Your task to perform on an android device: toggle priority inbox in the gmail app Image 0: 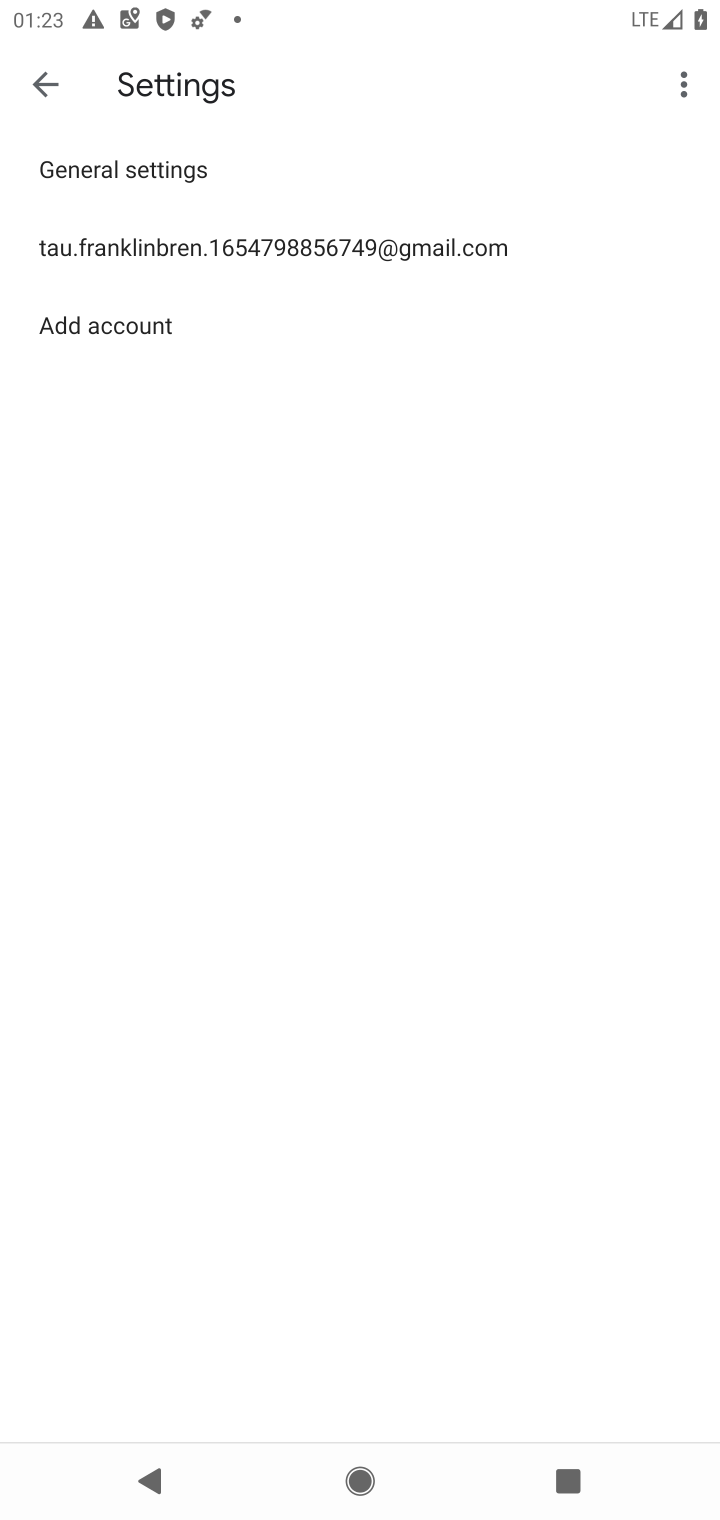
Step 0: drag from (349, 797) to (365, 343)
Your task to perform on an android device: toggle priority inbox in the gmail app Image 1: 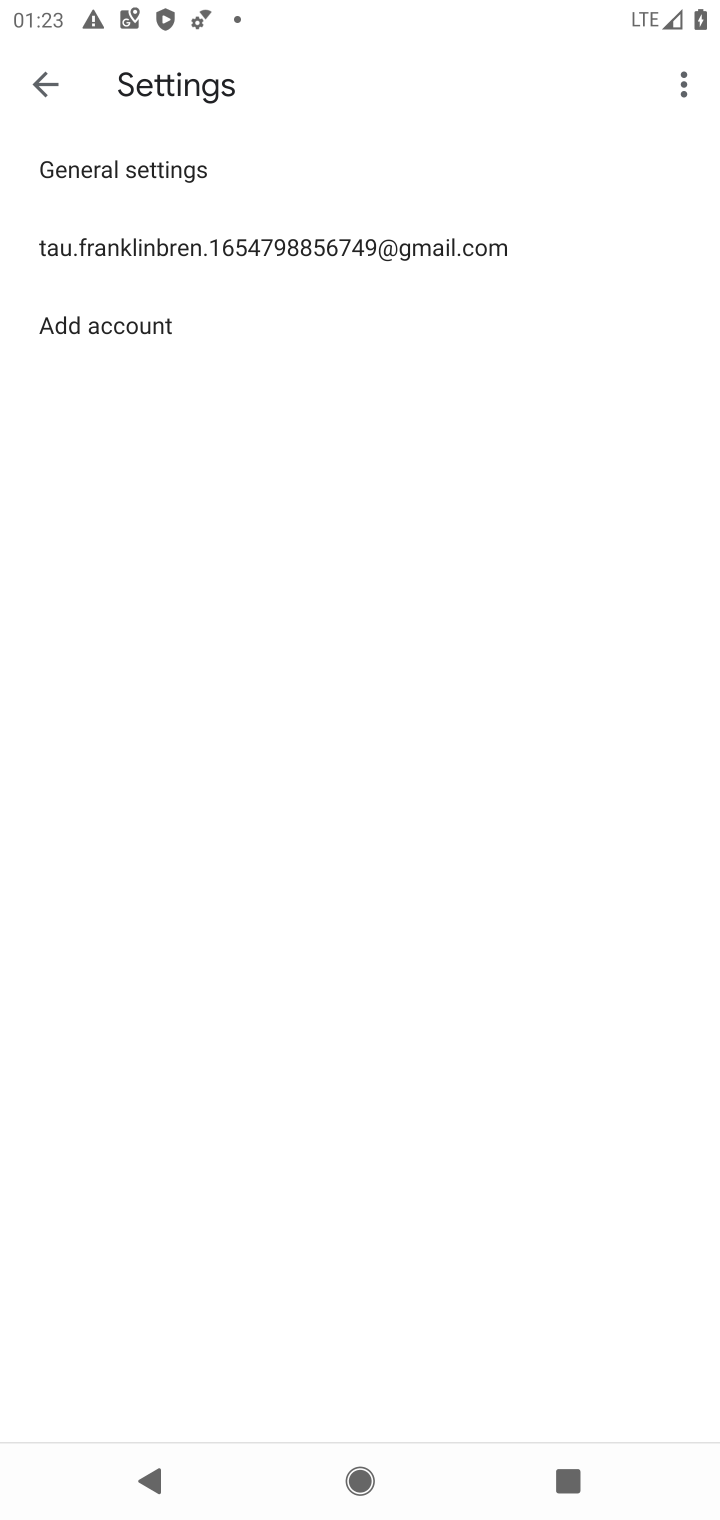
Step 1: click (42, 87)
Your task to perform on an android device: toggle priority inbox in the gmail app Image 2: 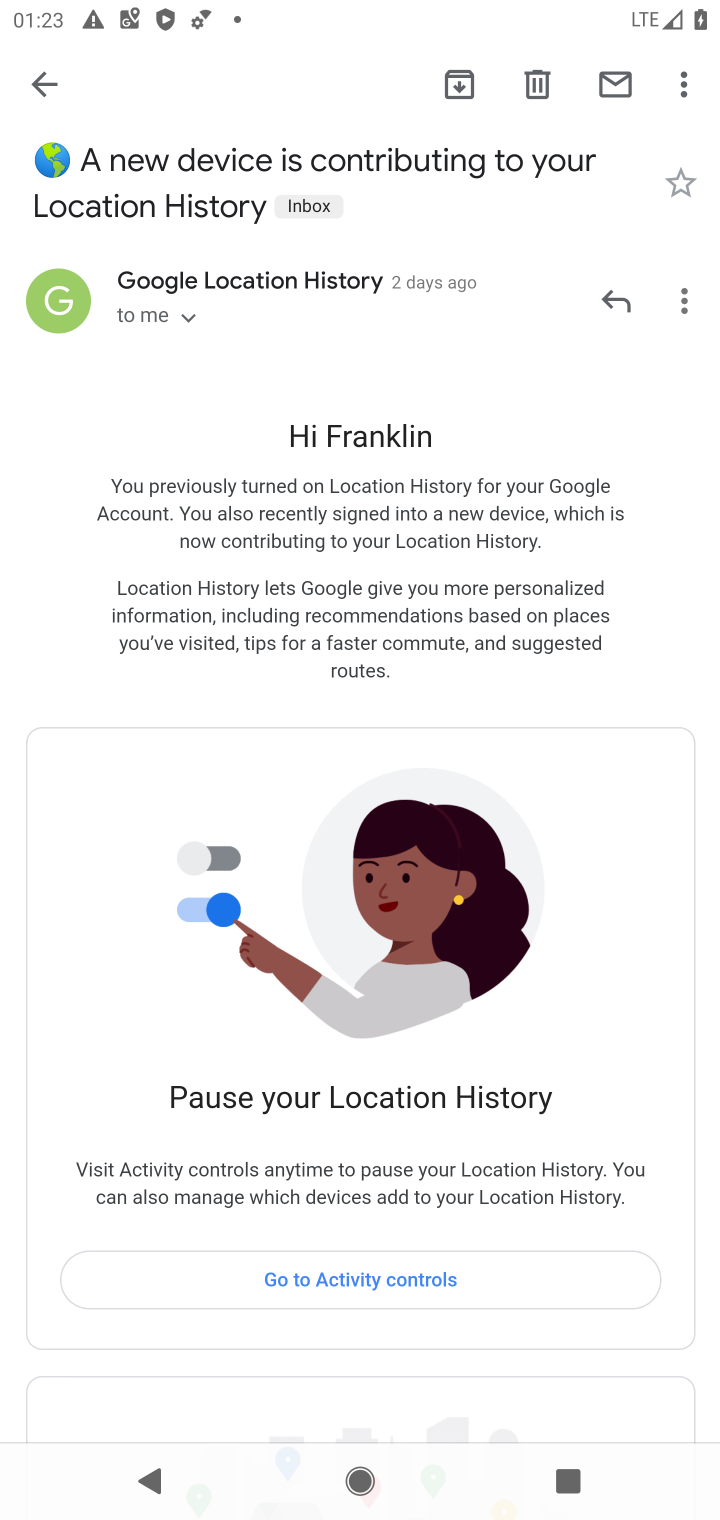
Step 2: click (42, 87)
Your task to perform on an android device: toggle priority inbox in the gmail app Image 3: 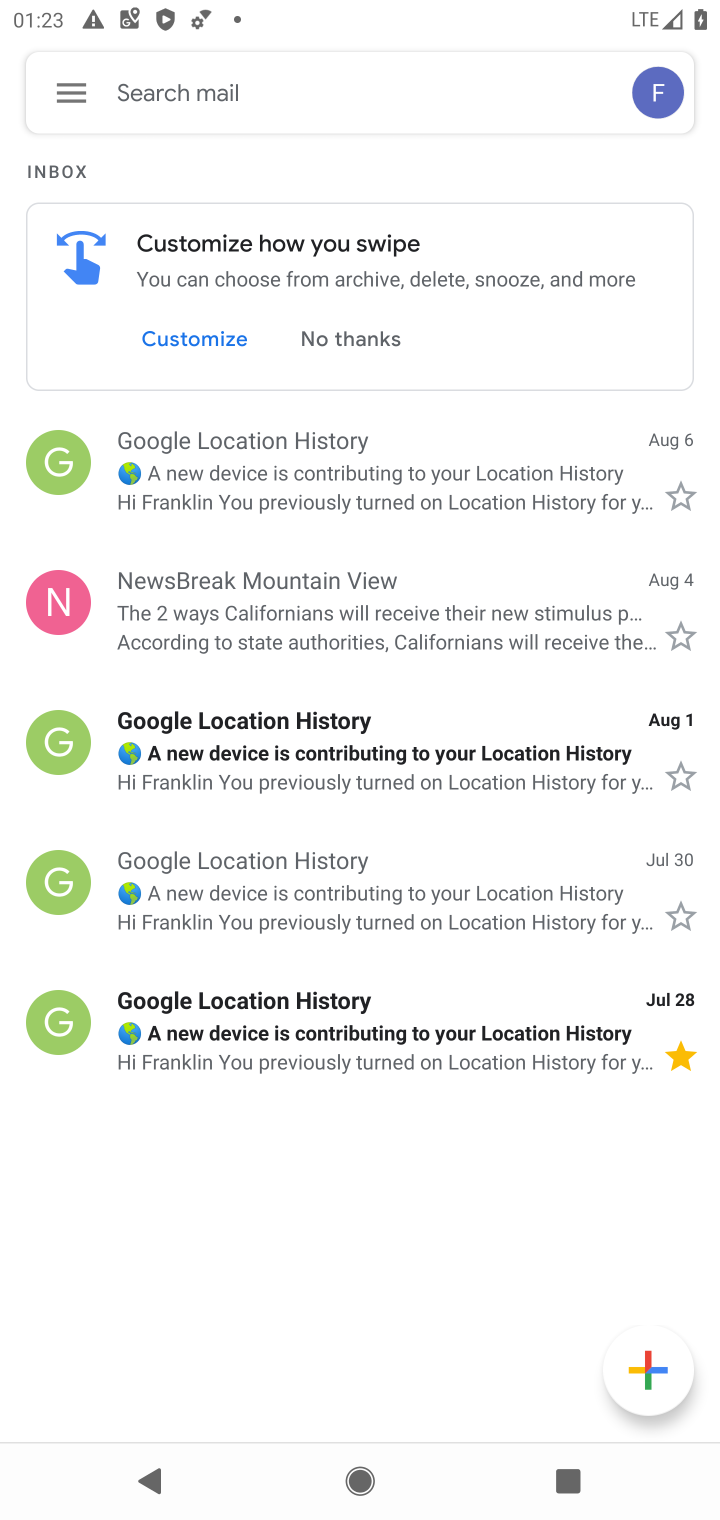
Step 3: click (63, 87)
Your task to perform on an android device: toggle priority inbox in the gmail app Image 4: 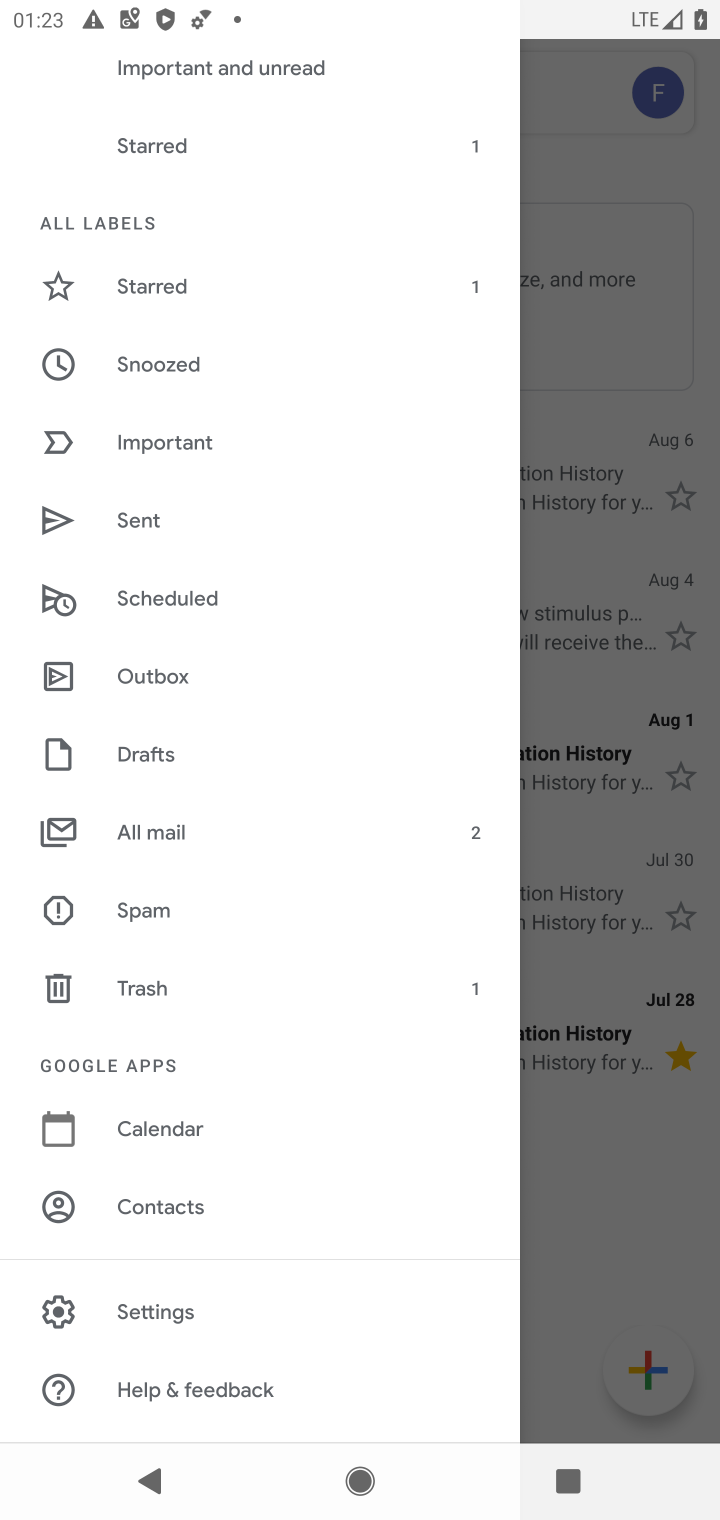
Step 4: click (153, 1317)
Your task to perform on an android device: toggle priority inbox in the gmail app Image 5: 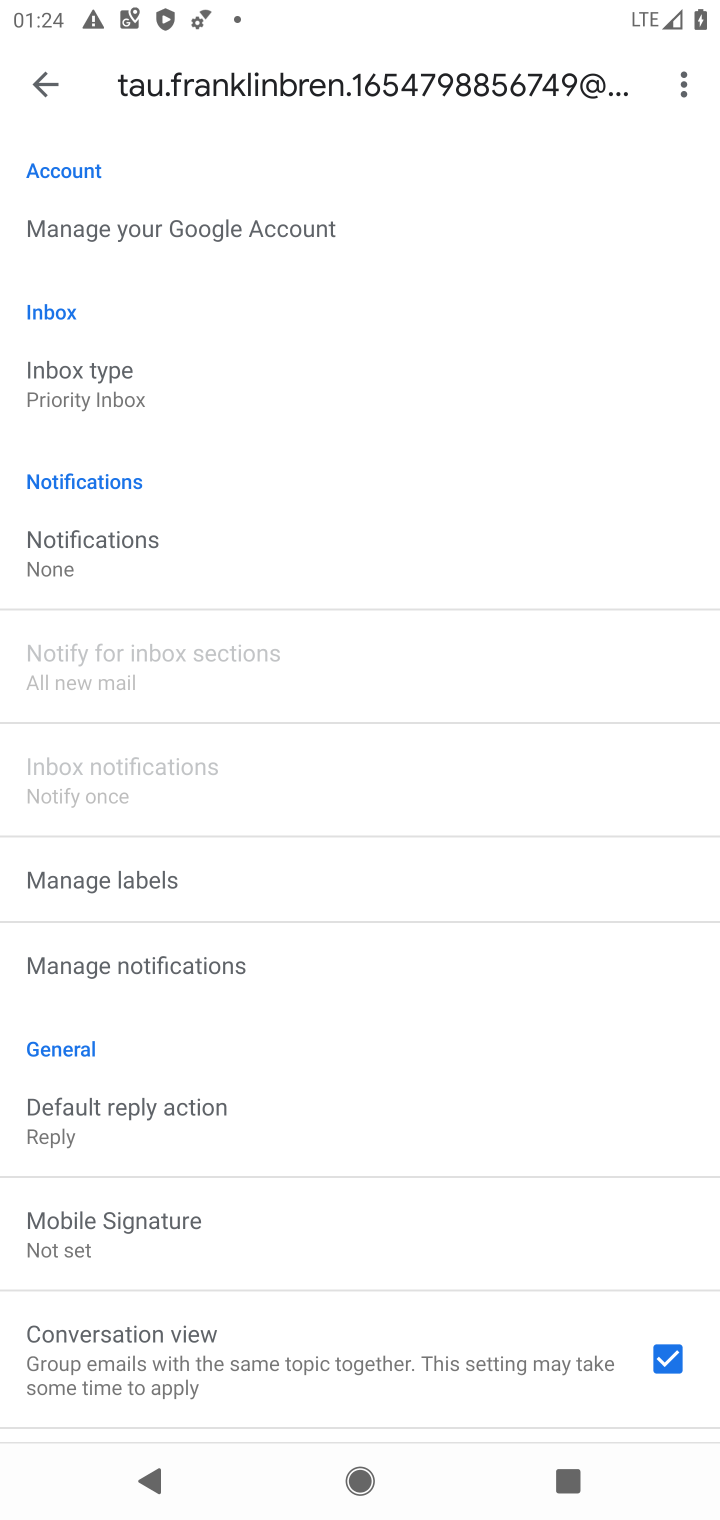
Step 5: click (102, 384)
Your task to perform on an android device: toggle priority inbox in the gmail app Image 6: 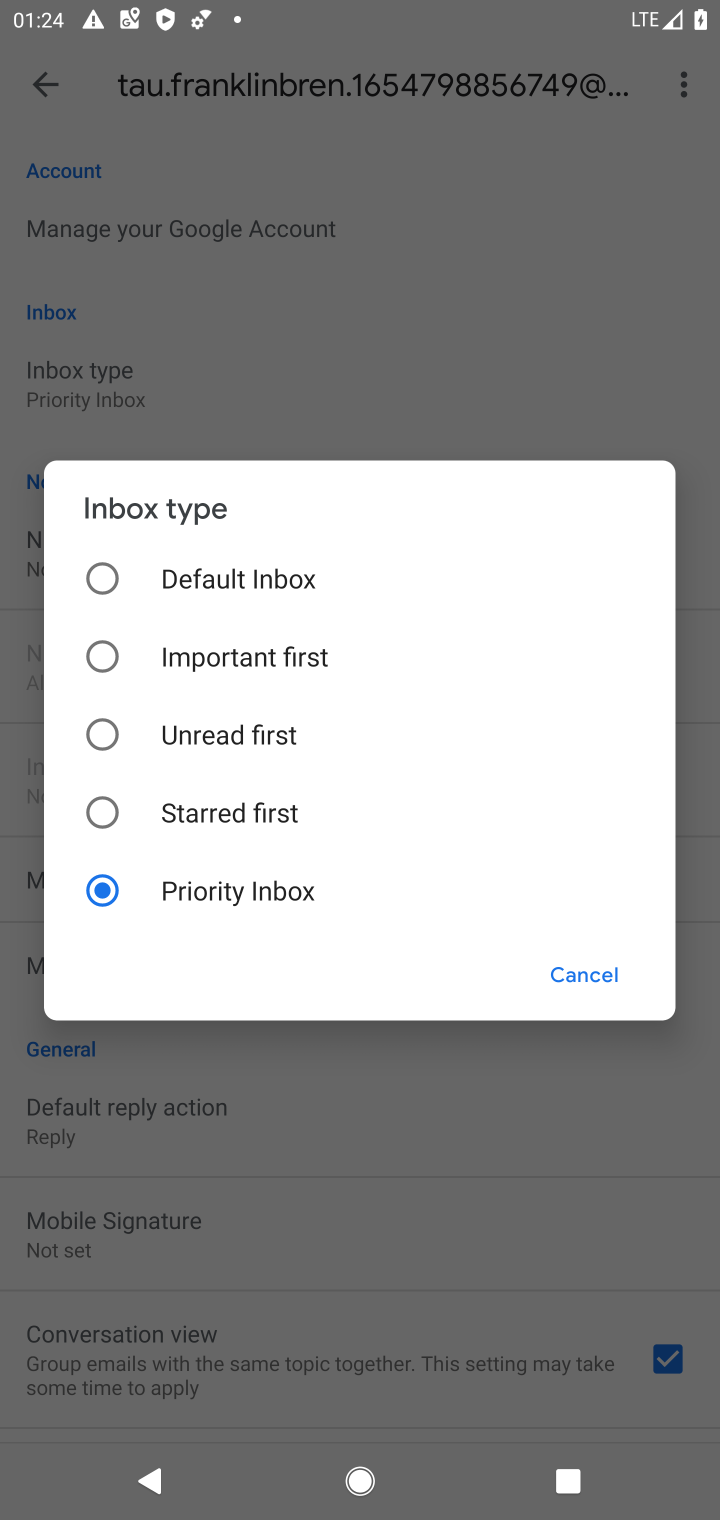
Step 6: click (104, 581)
Your task to perform on an android device: toggle priority inbox in the gmail app Image 7: 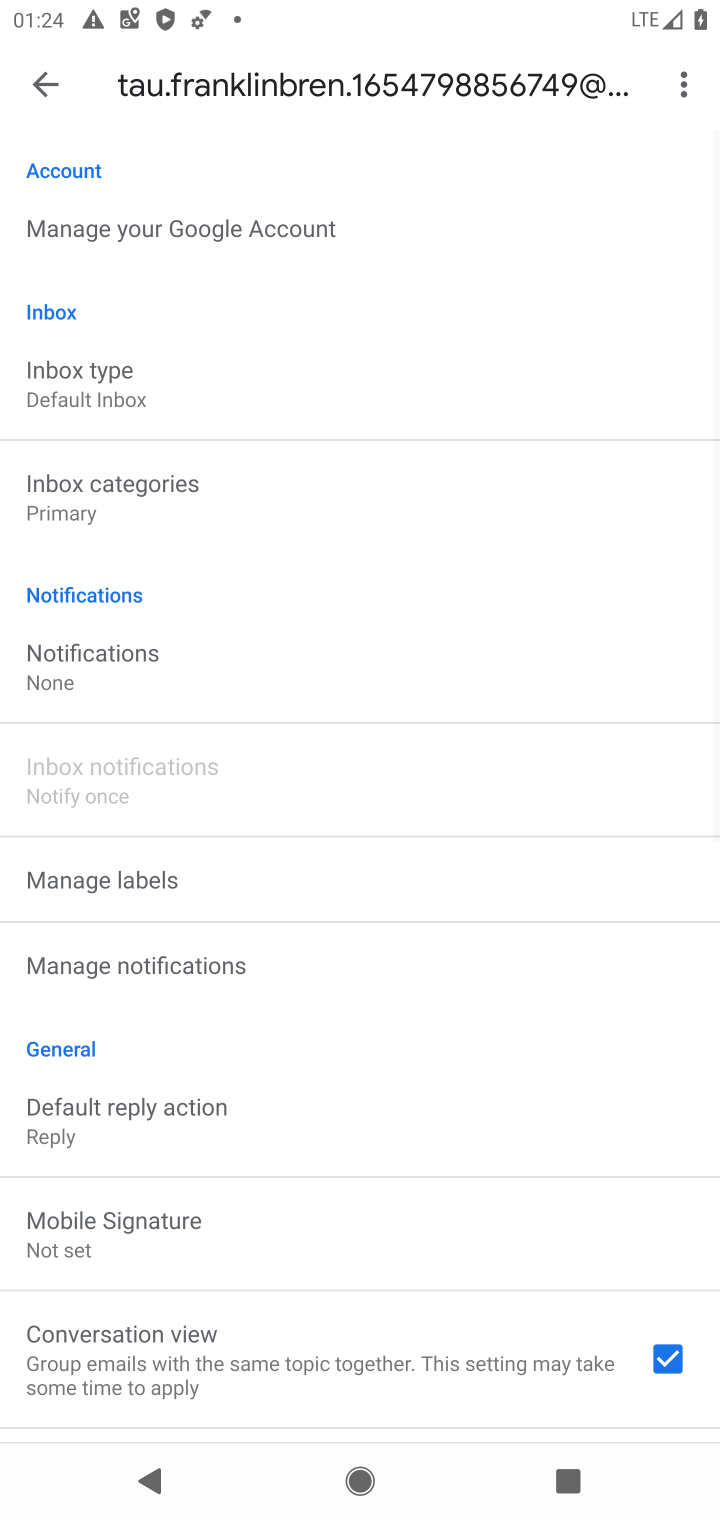
Step 7: task complete